Your task to perform on an android device: Search for the best rated 3d printer on Amazon. Image 0: 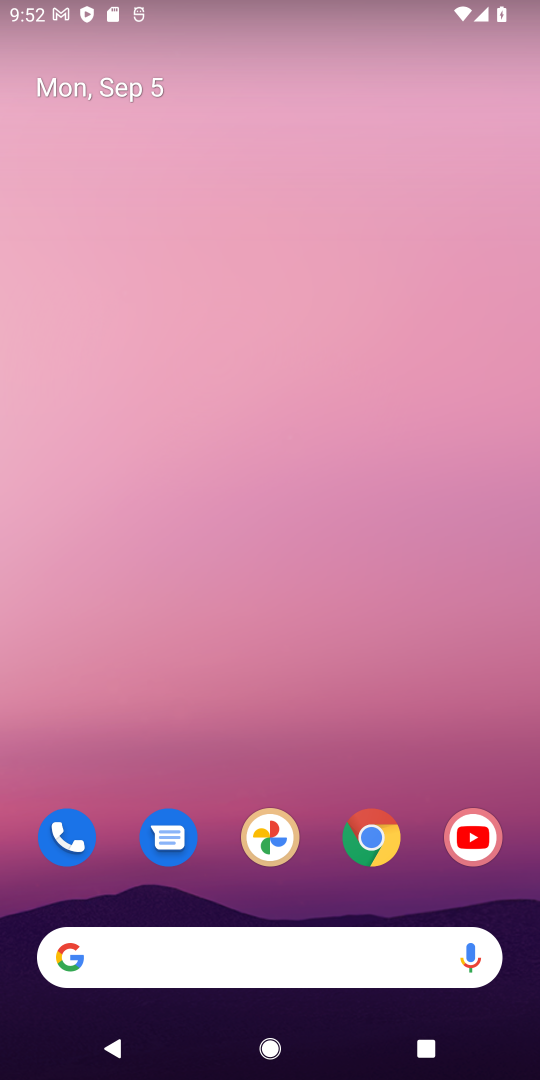
Step 0: press home button
Your task to perform on an android device: Search for the best rated 3d printer on Amazon. Image 1: 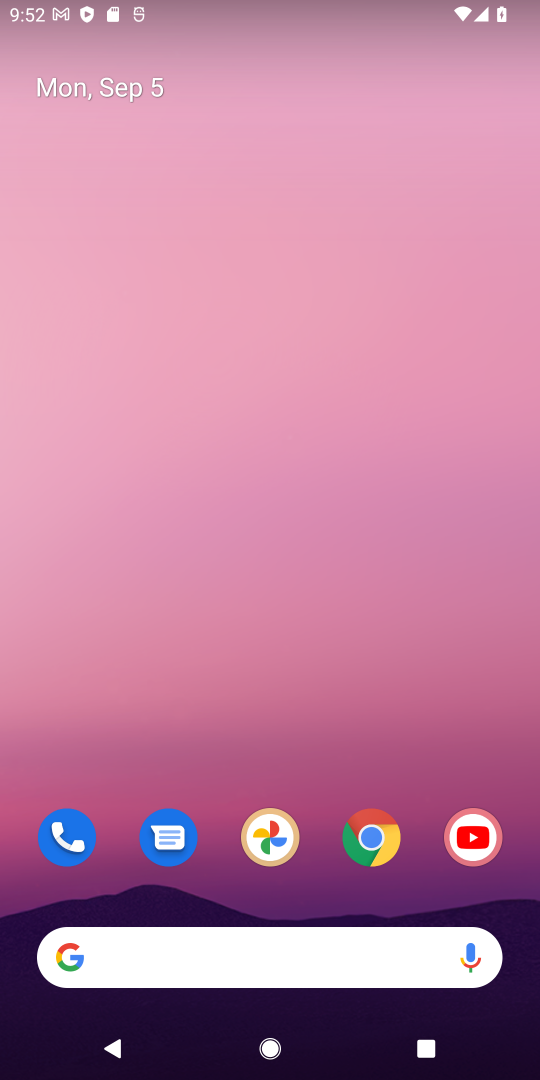
Step 1: drag from (315, 873) to (302, 233)
Your task to perform on an android device: Search for the best rated 3d printer on Amazon. Image 2: 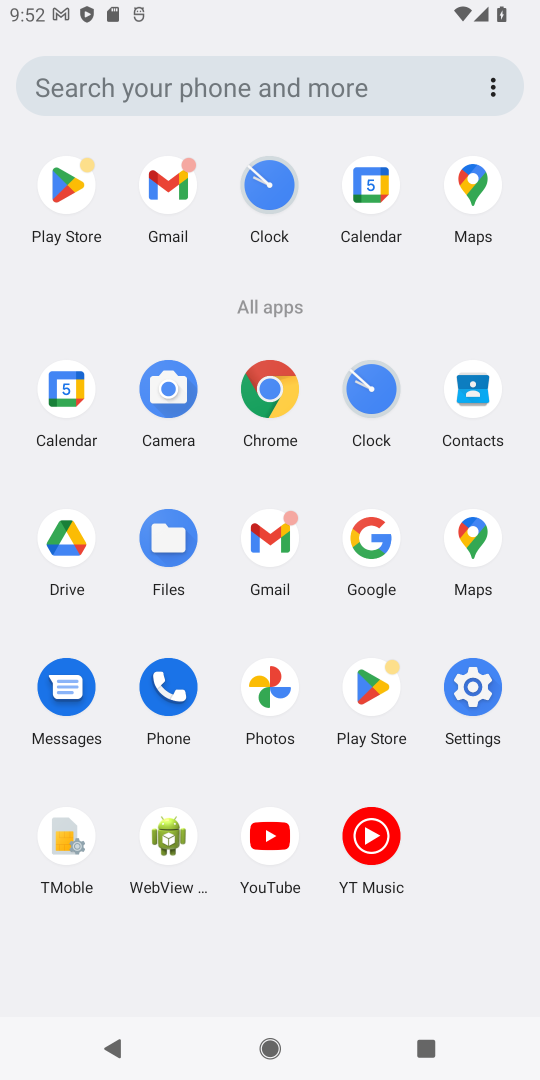
Step 2: click (269, 392)
Your task to perform on an android device: Search for the best rated 3d printer on Amazon. Image 3: 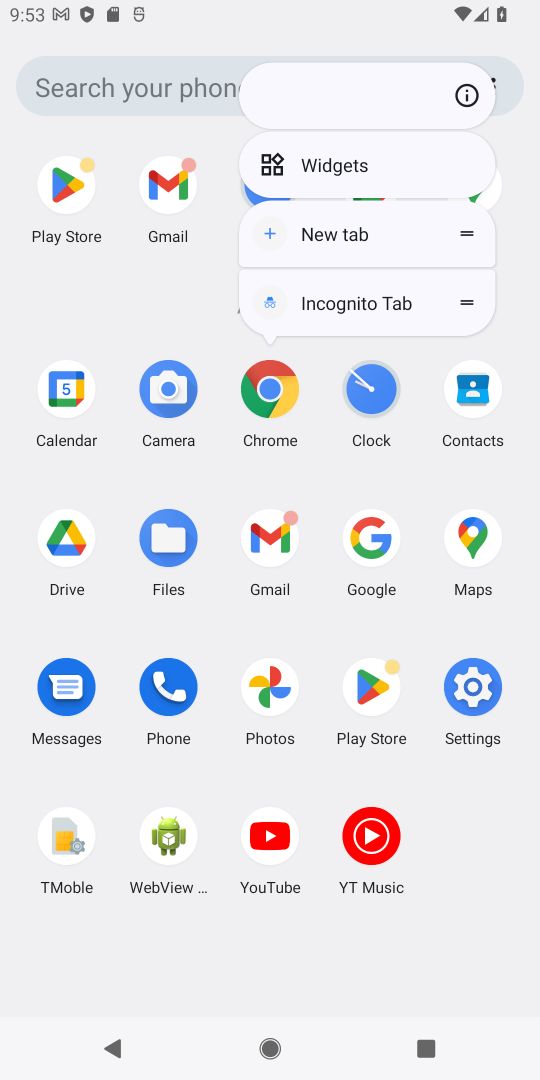
Step 3: click (275, 411)
Your task to perform on an android device: Search for the best rated 3d printer on Amazon. Image 4: 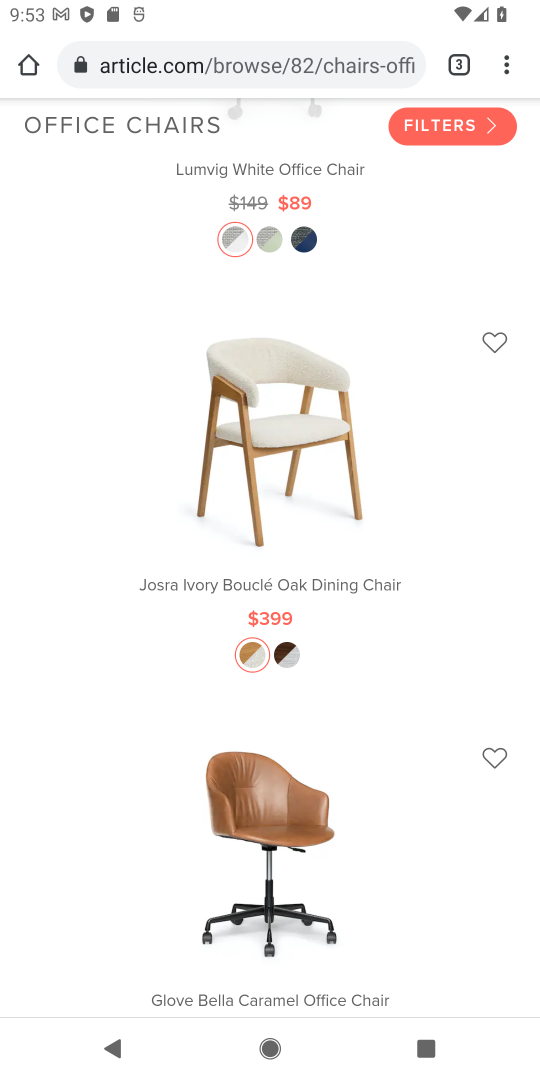
Step 4: drag from (361, 360) to (403, 871)
Your task to perform on an android device: Search for the best rated 3d printer on Amazon. Image 5: 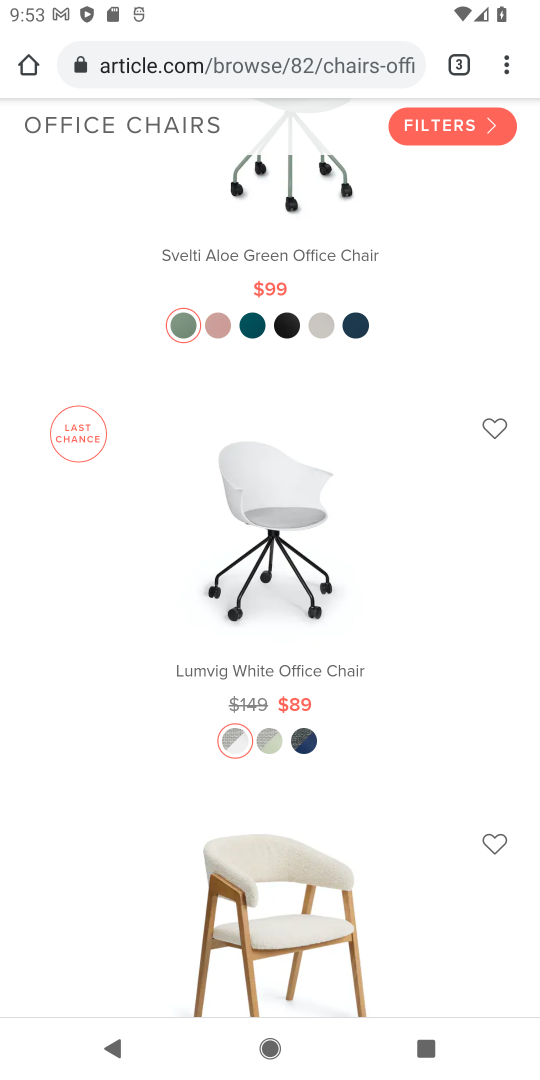
Step 5: click (449, 51)
Your task to perform on an android device: Search for the best rated 3d printer on Amazon. Image 6: 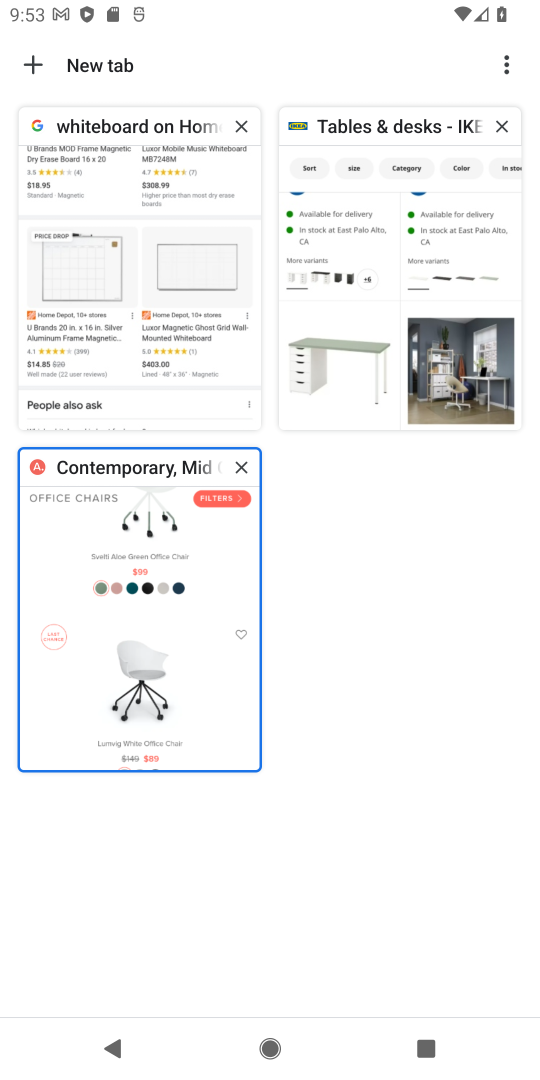
Step 6: click (42, 67)
Your task to perform on an android device: Search for the best rated 3d printer on Amazon. Image 7: 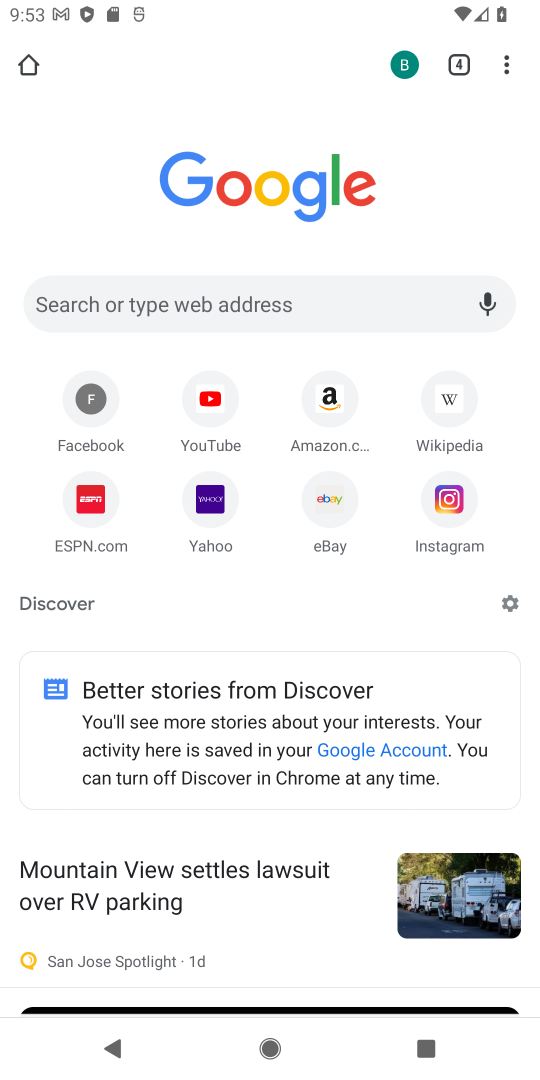
Step 7: click (132, 305)
Your task to perform on an android device: Search for the best rated 3d printer on Amazon. Image 8: 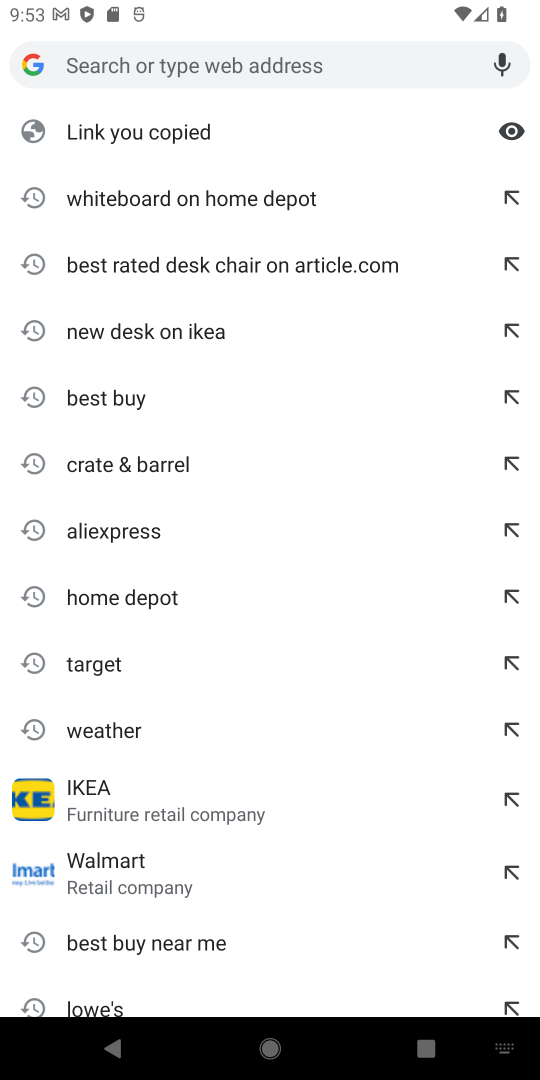
Step 8: type "3d printer on Amazon"
Your task to perform on an android device: Search for the best rated 3d printer on Amazon. Image 9: 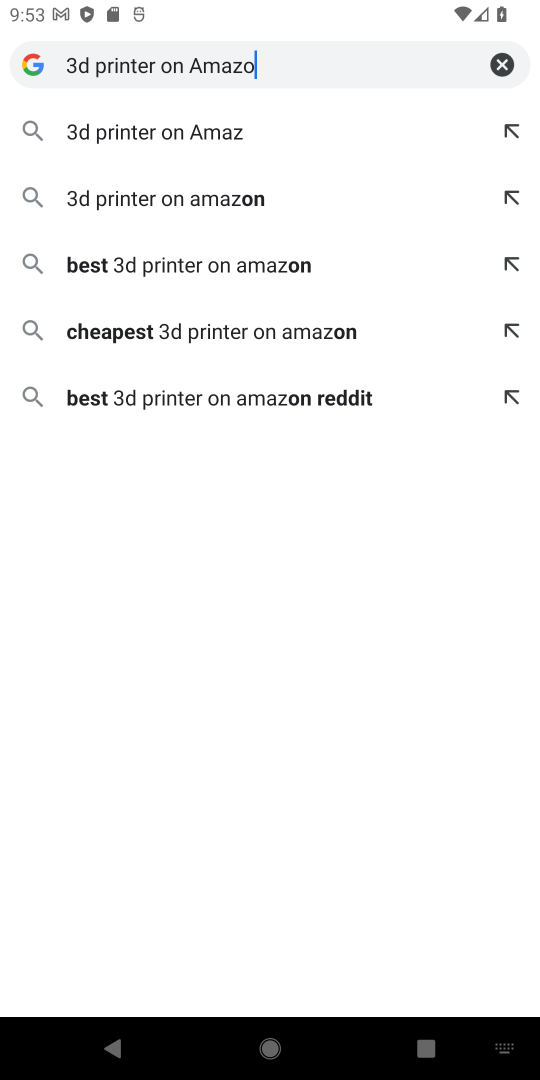
Step 9: type ""
Your task to perform on an android device: Search for the best rated 3d printer on Amazon. Image 10: 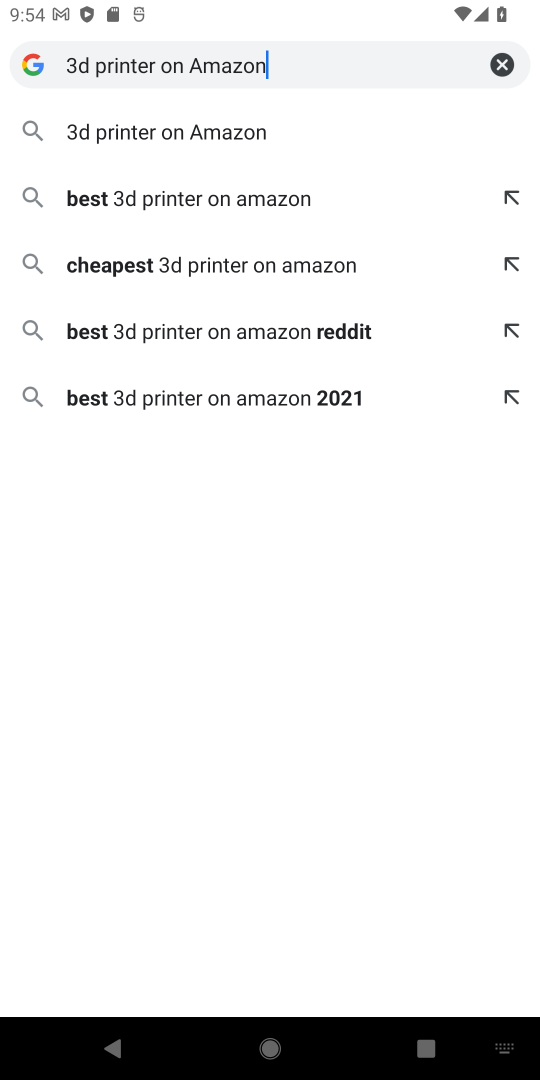
Step 10: click (168, 152)
Your task to perform on an android device: Search for the best rated 3d printer on Amazon. Image 11: 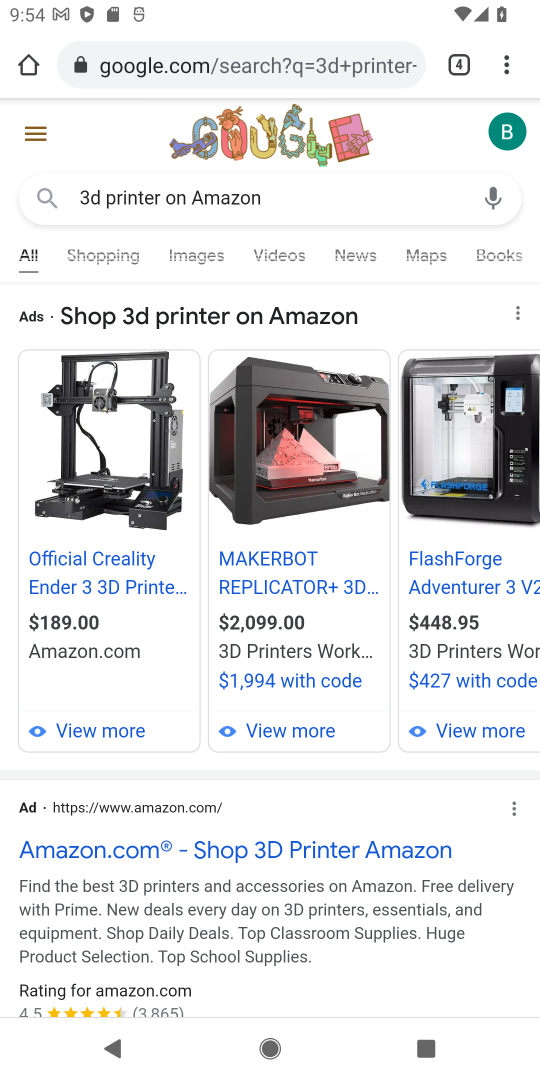
Step 11: drag from (291, 730) to (322, 358)
Your task to perform on an android device: Search for the best rated 3d printer on Amazon. Image 12: 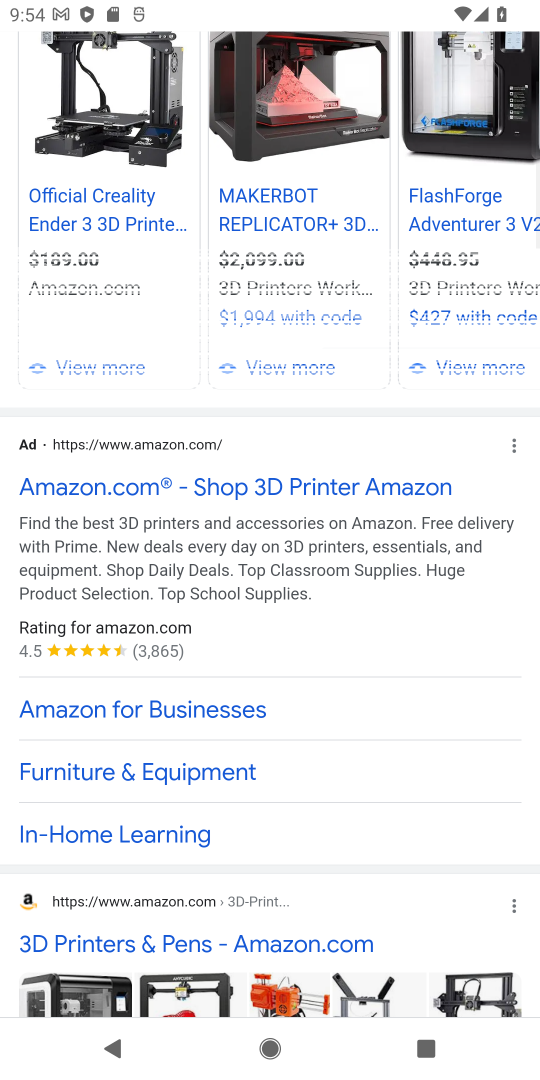
Step 12: click (293, 484)
Your task to perform on an android device: Search for the best rated 3d printer on Amazon. Image 13: 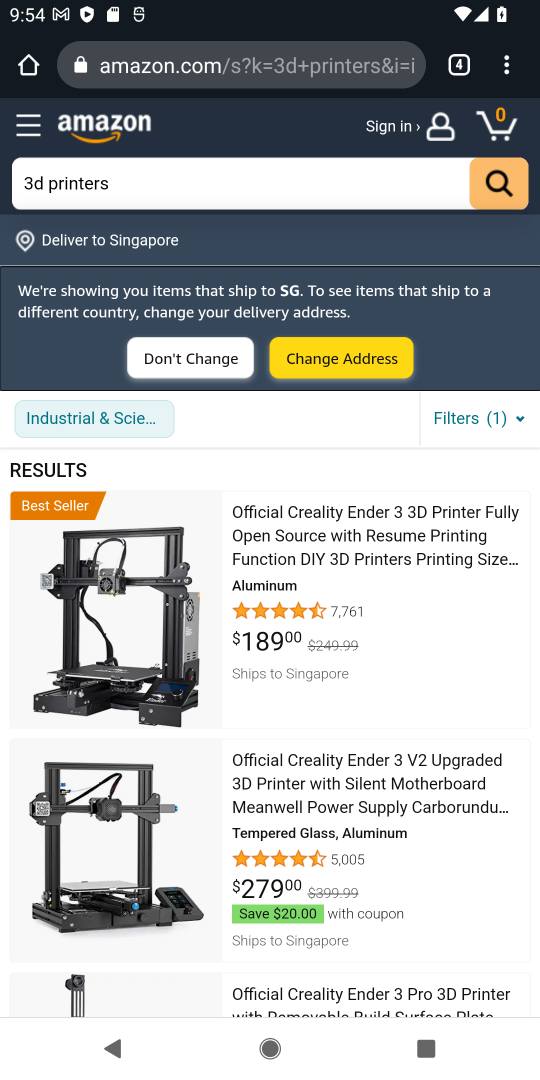
Step 13: task complete